Your task to perform on an android device: Go to Reddit.com Image 0: 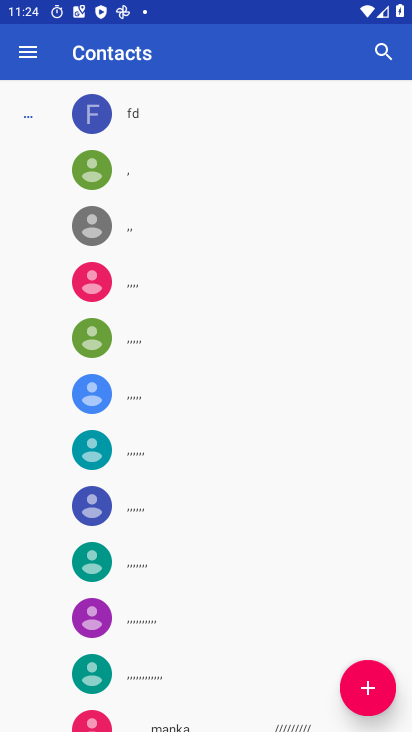
Step 0: press home button
Your task to perform on an android device: Go to Reddit.com Image 1: 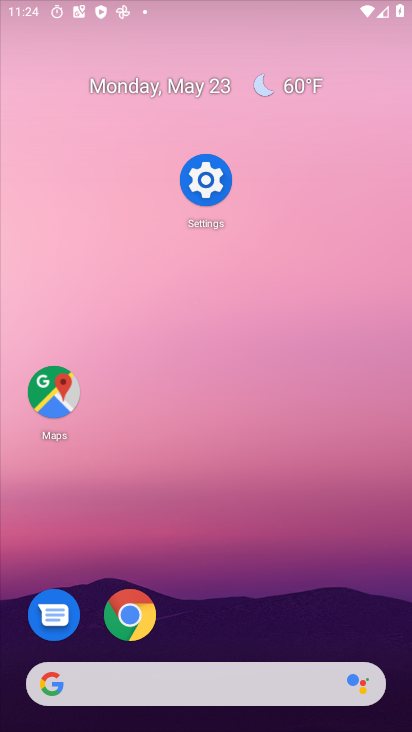
Step 1: drag from (220, 605) to (174, 98)
Your task to perform on an android device: Go to Reddit.com Image 2: 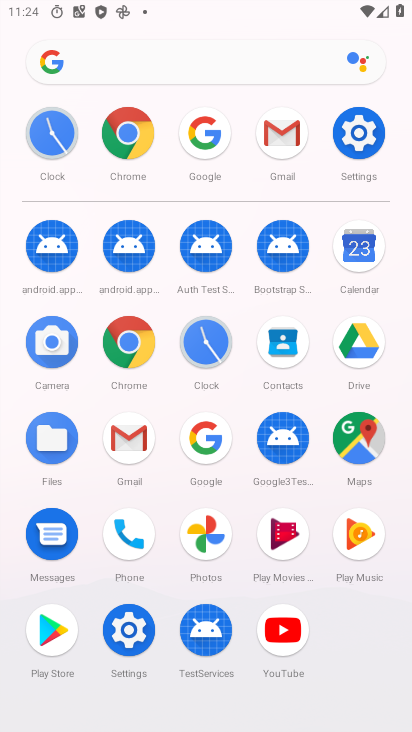
Step 2: click (208, 438)
Your task to perform on an android device: Go to Reddit.com Image 3: 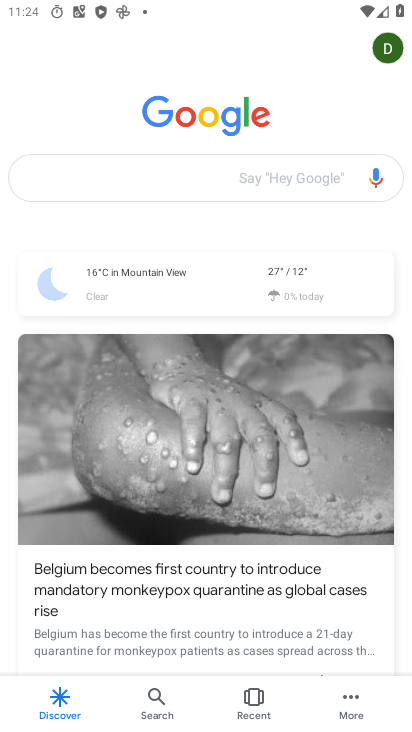
Step 3: click (198, 171)
Your task to perform on an android device: Go to Reddit.com Image 4: 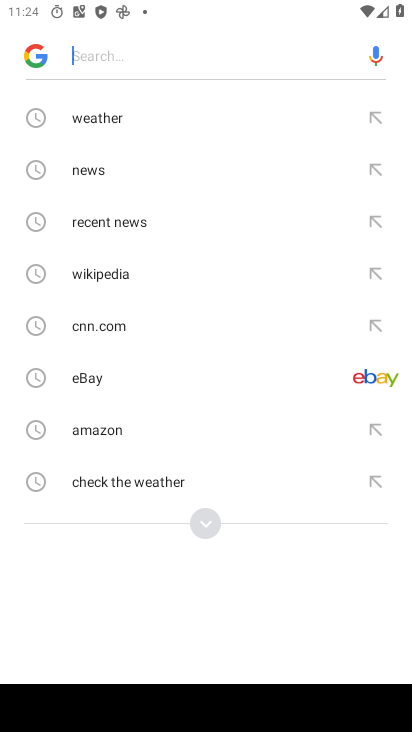
Step 4: click (203, 526)
Your task to perform on an android device: Go to Reddit.com Image 5: 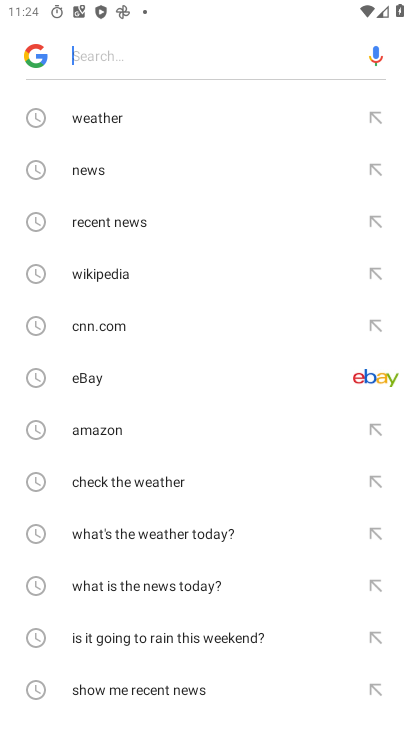
Step 5: drag from (222, 659) to (239, 78)
Your task to perform on an android device: Go to Reddit.com Image 6: 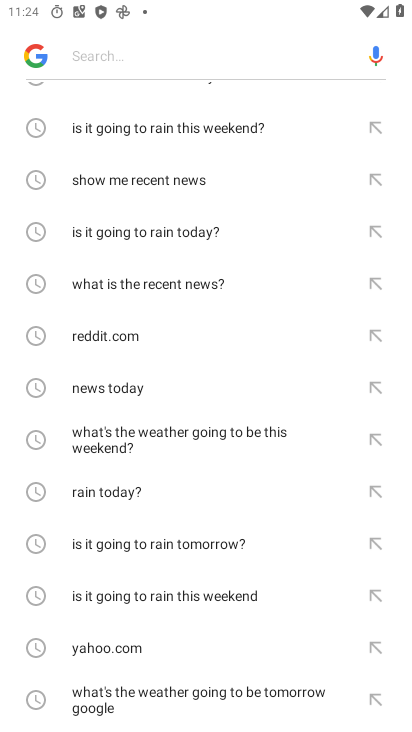
Step 6: click (136, 349)
Your task to perform on an android device: Go to Reddit.com Image 7: 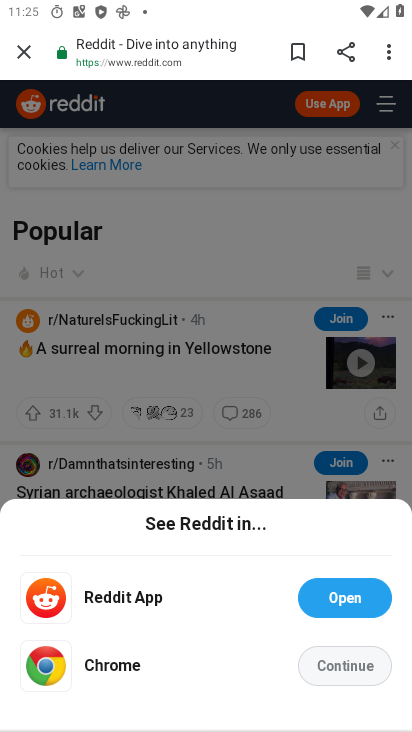
Step 7: task complete